Your task to perform on an android device: open a bookmark in the chrome app Image 0: 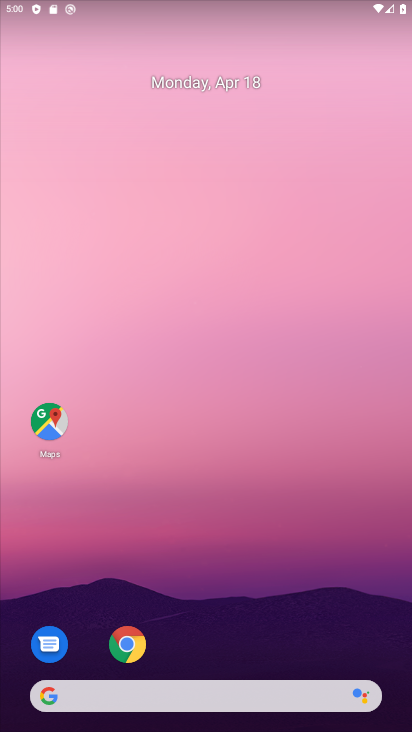
Step 0: click (130, 640)
Your task to perform on an android device: open a bookmark in the chrome app Image 1: 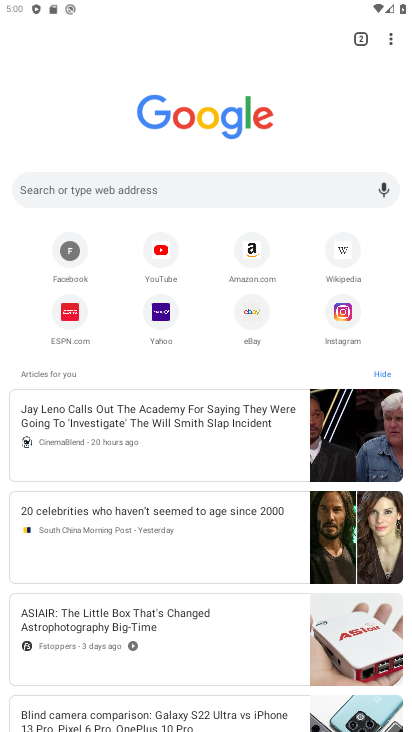
Step 1: click (389, 31)
Your task to perform on an android device: open a bookmark in the chrome app Image 2: 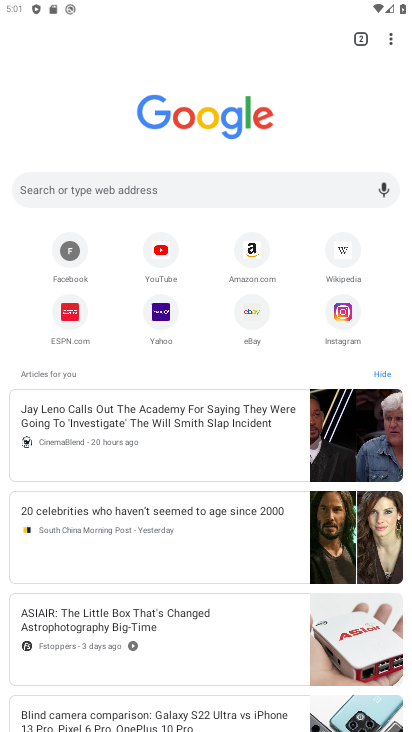
Step 2: click (388, 40)
Your task to perform on an android device: open a bookmark in the chrome app Image 3: 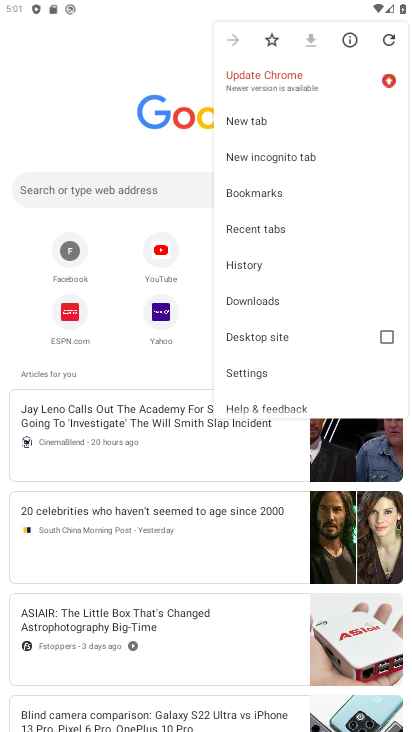
Step 3: click (261, 195)
Your task to perform on an android device: open a bookmark in the chrome app Image 4: 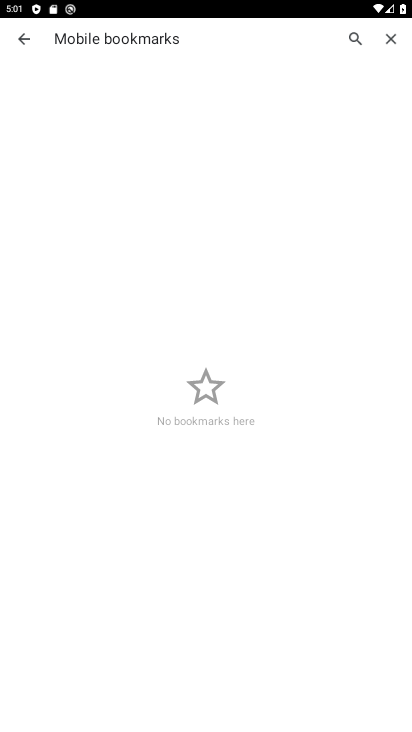
Step 4: task complete